Your task to perform on an android device: Set the phone to "Do not disturb". Image 0: 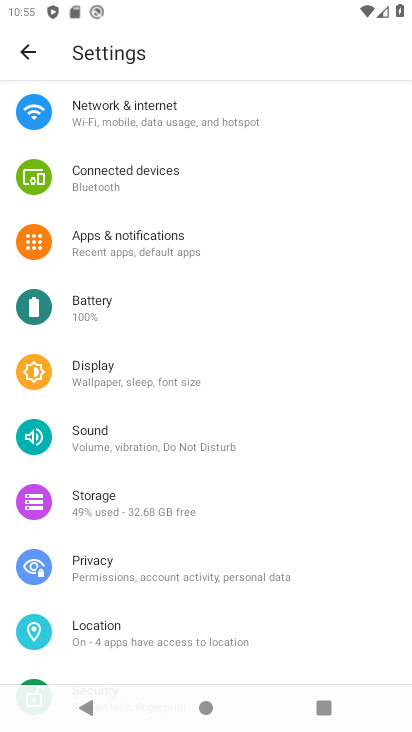
Step 0: press home button
Your task to perform on an android device: Set the phone to "Do not disturb". Image 1: 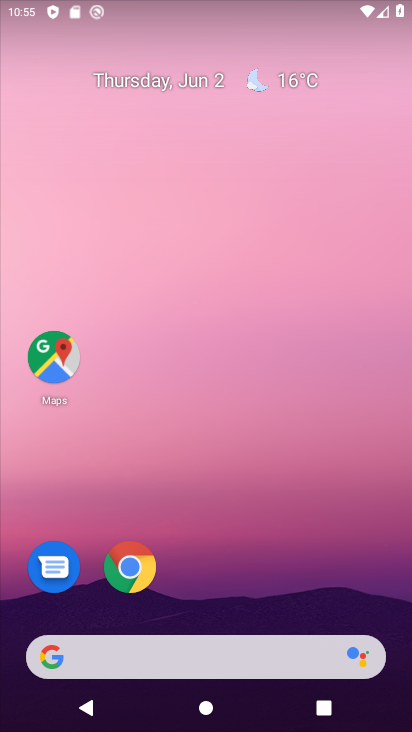
Step 1: drag from (179, 9) to (137, 442)
Your task to perform on an android device: Set the phone to "Do not disturb". Image 2: 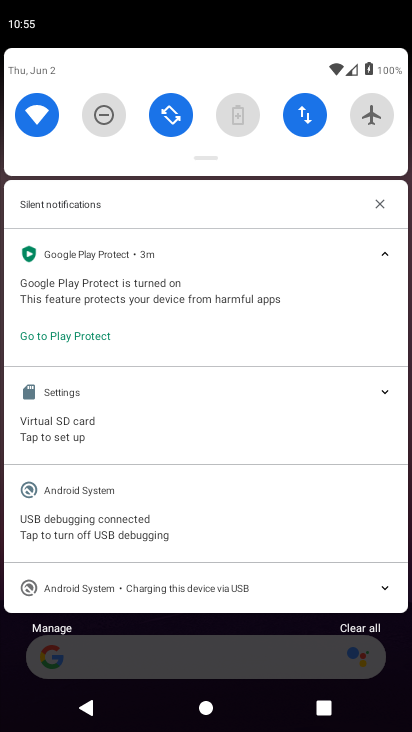
Step 2: drag from (196, 159) to (205, 483)
Your task to perform on an android device: Set the phone to "Do not disturb". Image 3: 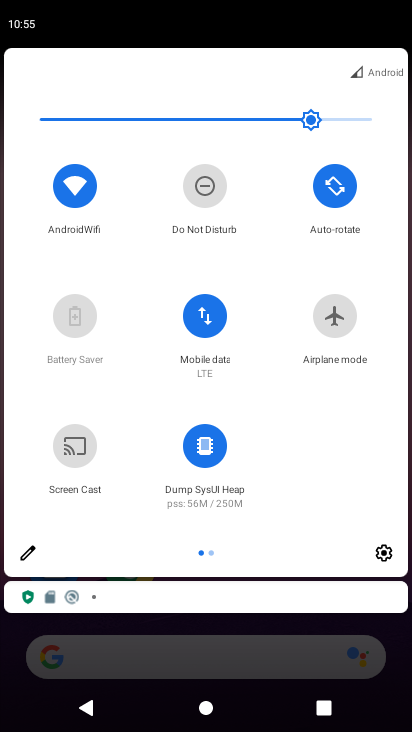
Step 3: click (223, 188)
Your task to perform on an android device: Set the phone to "Do not disturb". Image 4: 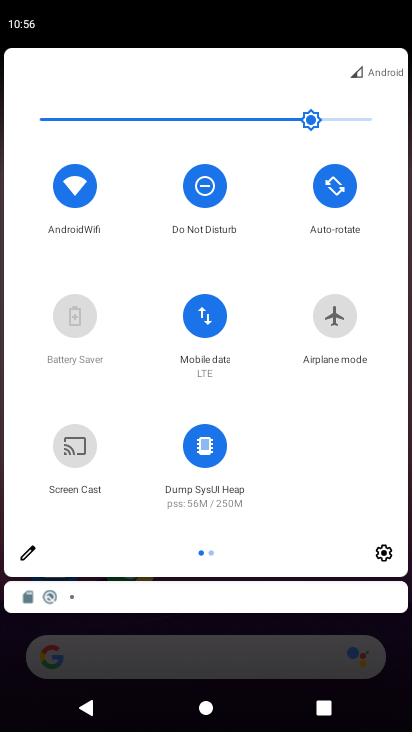
Step 4: task complete